Your task to perform on an android device: open a bookmark in the chrome app Image 0: 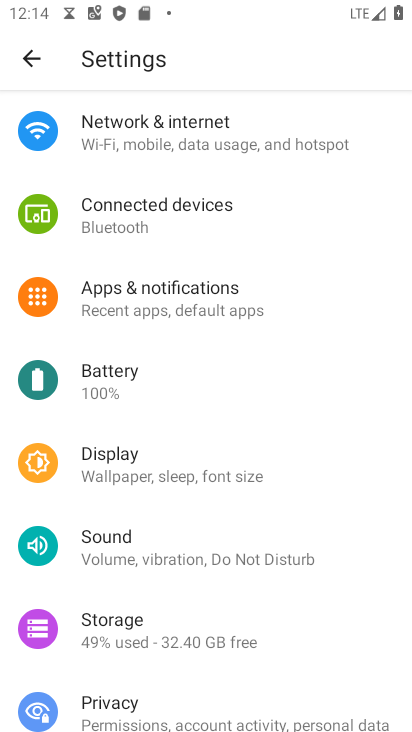
Step 0: press home button
Your task to perform on an android device: open a bookmark in the chrome app Image 1: 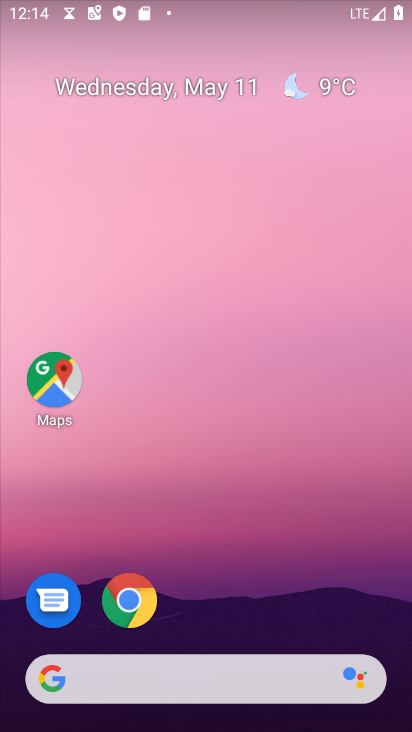
Step 1: click (131, 597)
Your task to perform on an android device: open a bookmark in the chrome app Image 2: 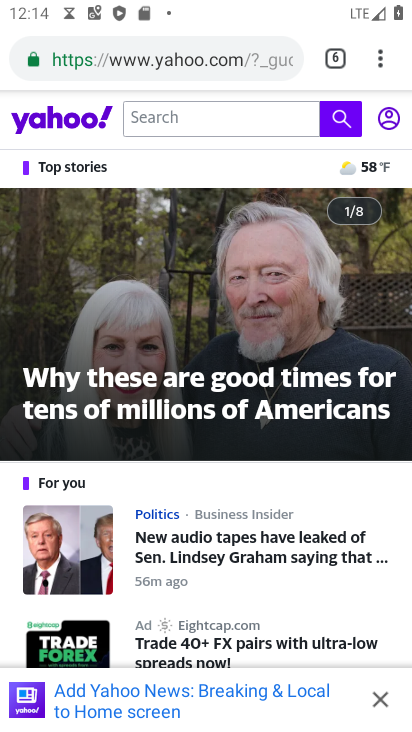
Step 2: click (375, 60)
Your task to perform on an android device: open a bookmark in the chrome app Image 3: 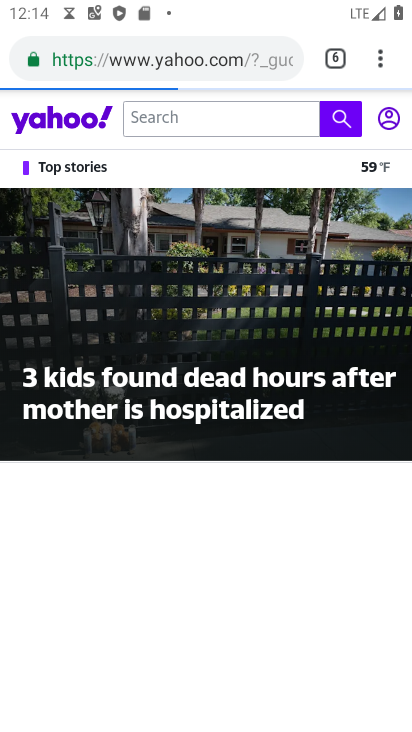
Step 3: click (385, 68)
Your task to perform on an android device: open a bookmark in the chrome app Image 4: 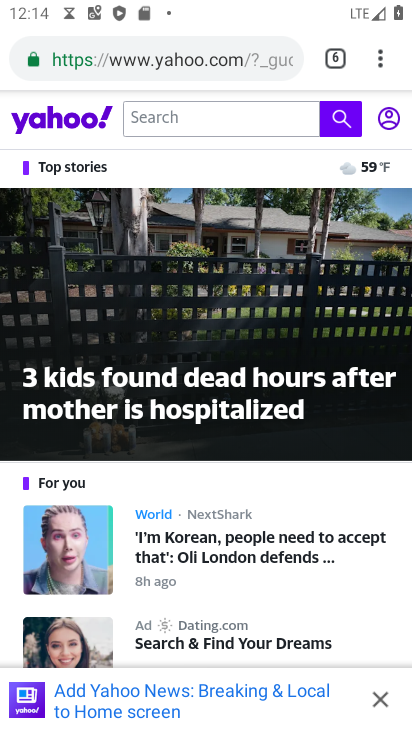
Step 4: click (380, 59)
Your task to perform on an android device: open a bookmark in the chrome app Image 5: 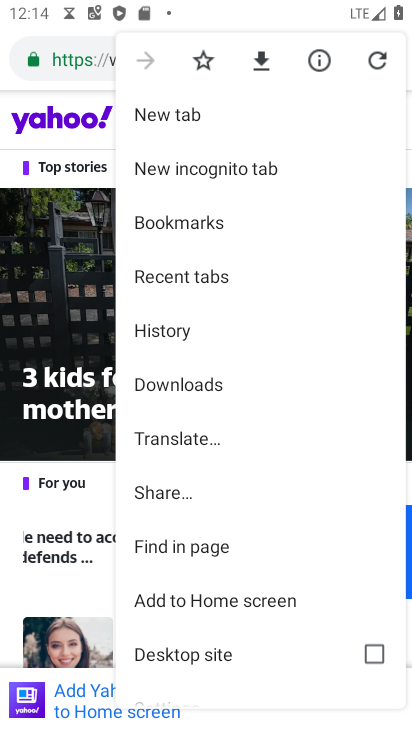
Step 5: click (191, 216)
Your task to perform on an android device: open a bookmark in the chrome app Image 6: 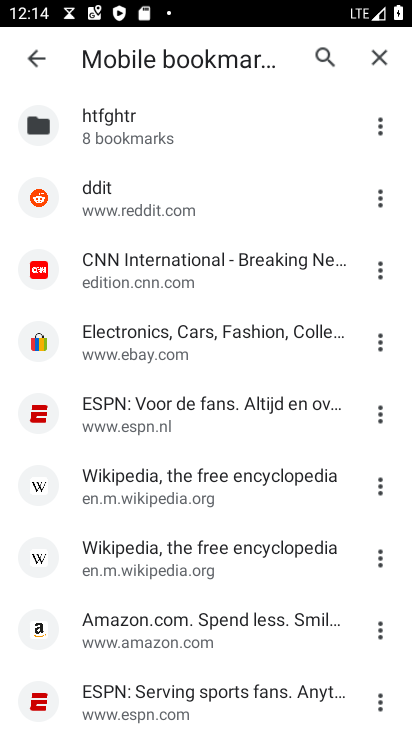
Step 6: click (175, 390)
Your task to perform on an android device: open a bookmark in the chrome app Image 7: 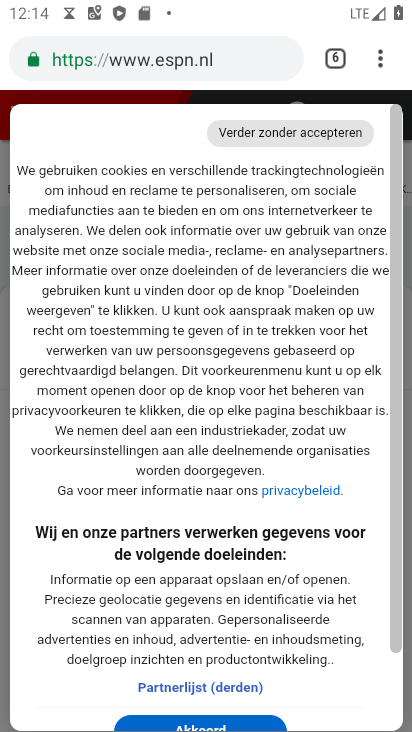
Step 7: task complete